Your task to perform on an android device: Go to Google maps Image 0: 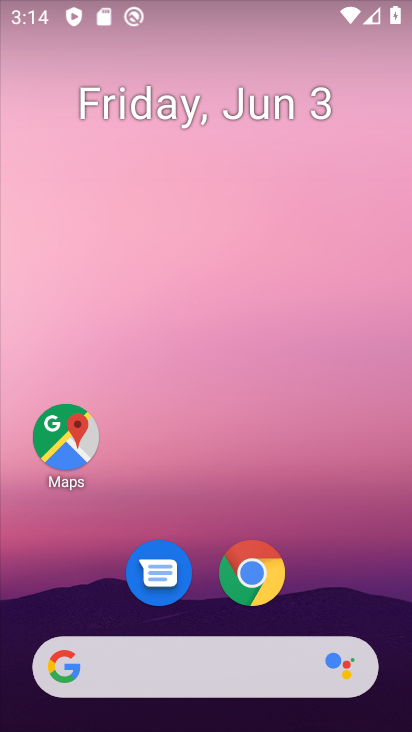
Step 0: click (70, 439)
Your task to perform on an android device: Go to Google maps Image 1: 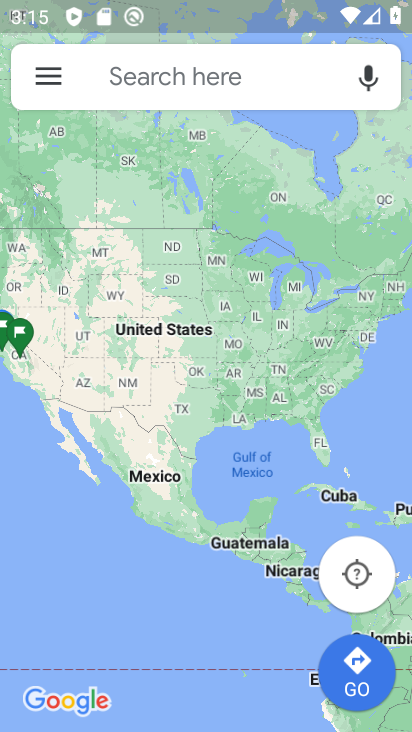
Step 1: task complete